Your task to perform on an android device: change alarm snooze length Image 0: 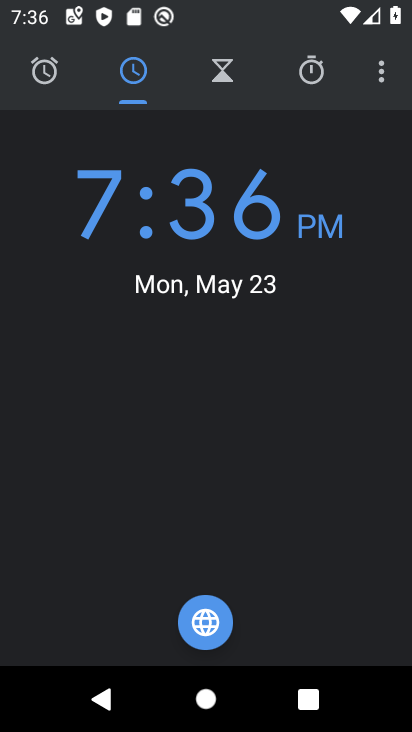
Step 0: press home button
Your task to perform on an android device: change alarm snooze length Image 1: 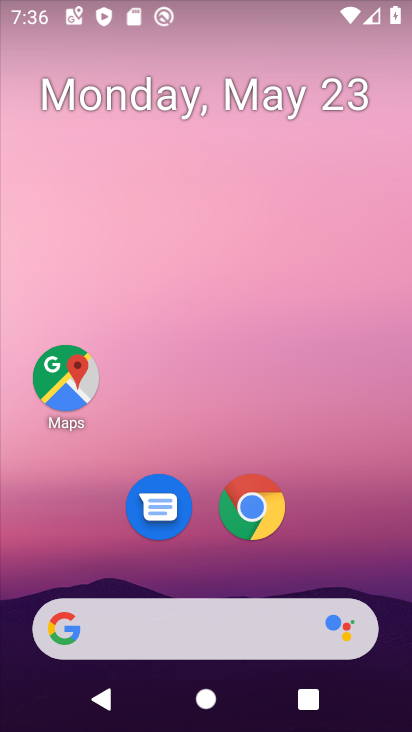
Step 1: drag from (368, 534) to (332, 135)
Your task to perform on an android device: change alarm snooze length Image 2: 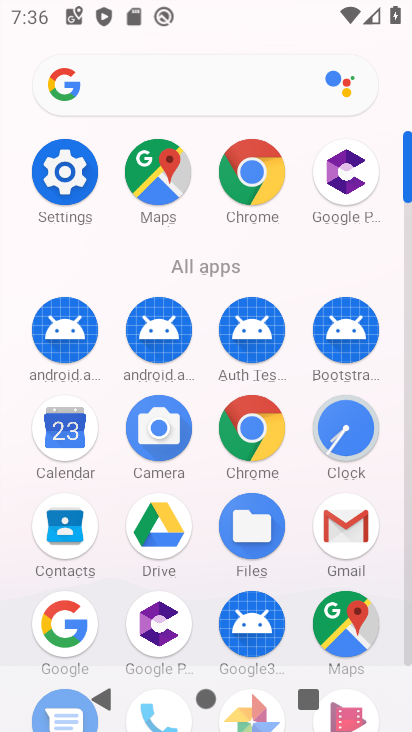
Step 2: click (340, 431)
Your task to perform on an android device: change alarm snooze length Image 3: 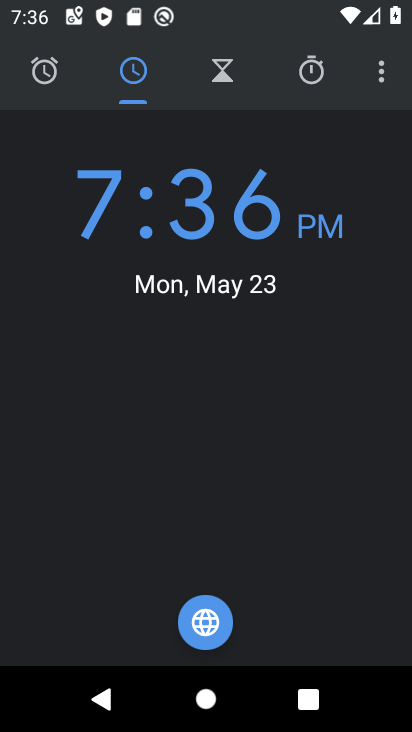
Step 3: drag from (386, 88) to (318, 130)
Your task to perform on an android device: change alarm snooze length Image 4: 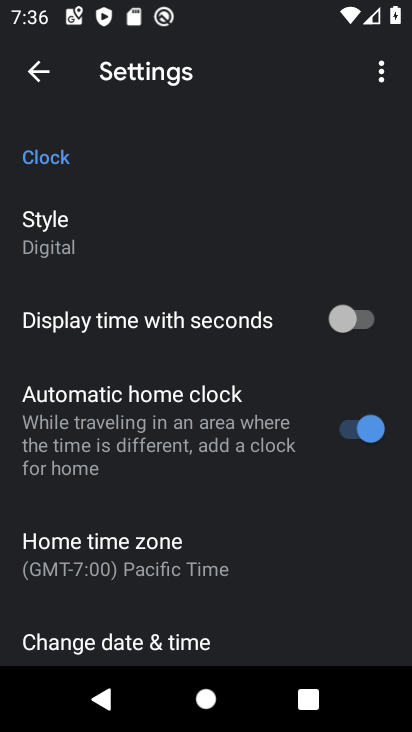
Step 4: drag from (256, 573) to (253, 271)
Your task to perform on an android device: change alarm snooze length Image 5: 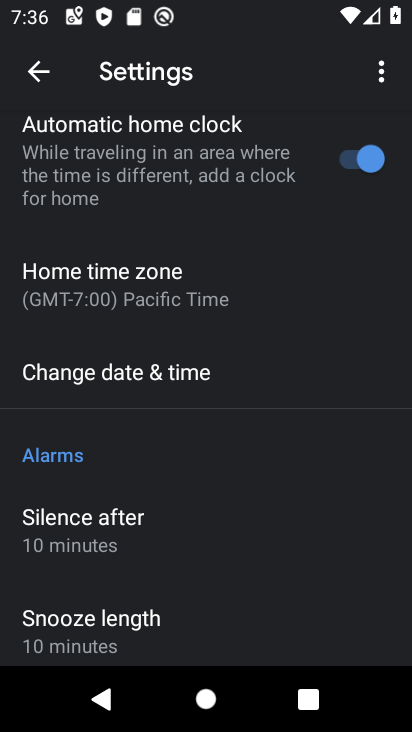
Step 5: drag from (222, 556) to (214, 278)
Your task to perform on an android device: change alarm snooze length Image 6: 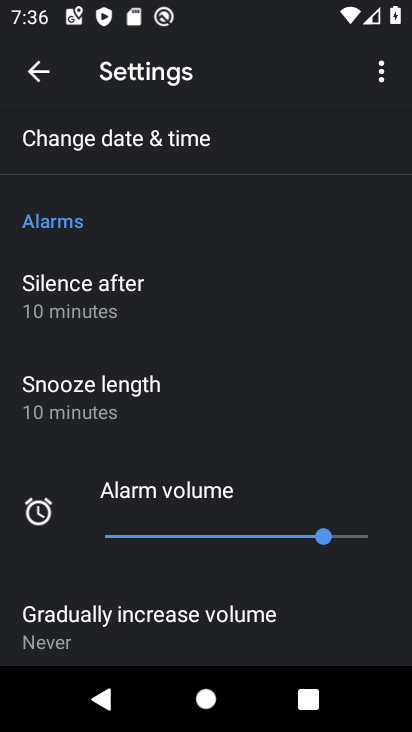
Step 6: click (169, 391)
Your task to perform on an android device: change alarm snooze length Image 7: 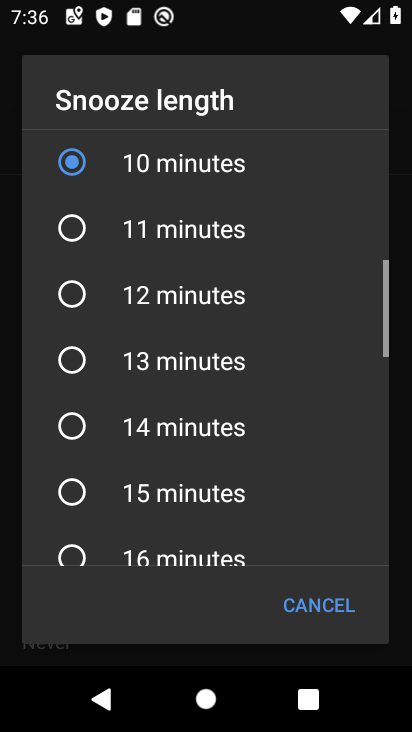
Step 7: click (145, 277)
Your task to perform on an android device: change alarm snooze length Image 8: 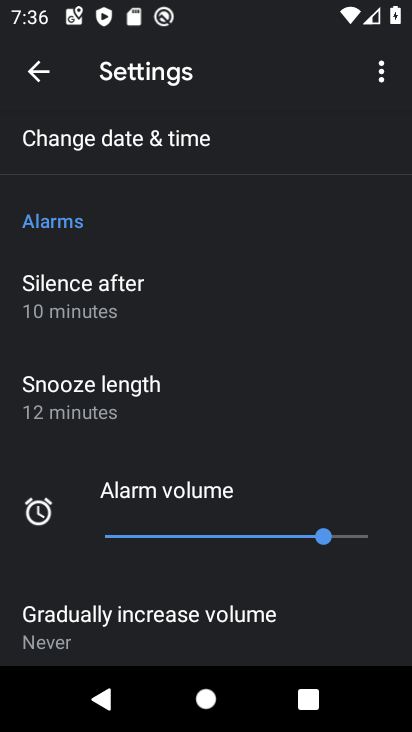
Step 8: task complete